Your task to perform on an android device: Go to CNN.com Image 0: 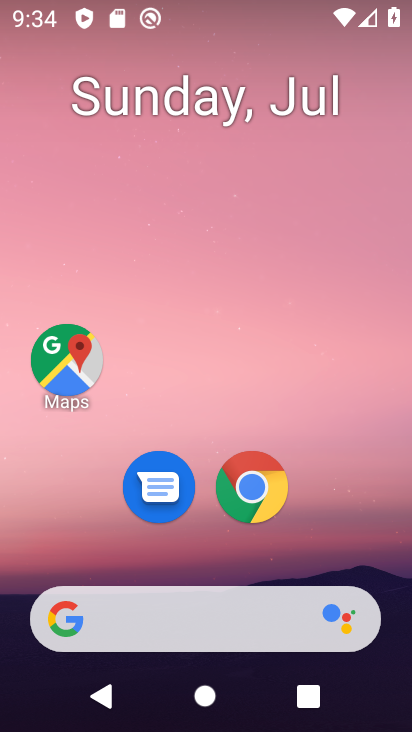
Step 0: click (256, 474)
Your task to perform on an android device: Go to CNN.com Image 1: 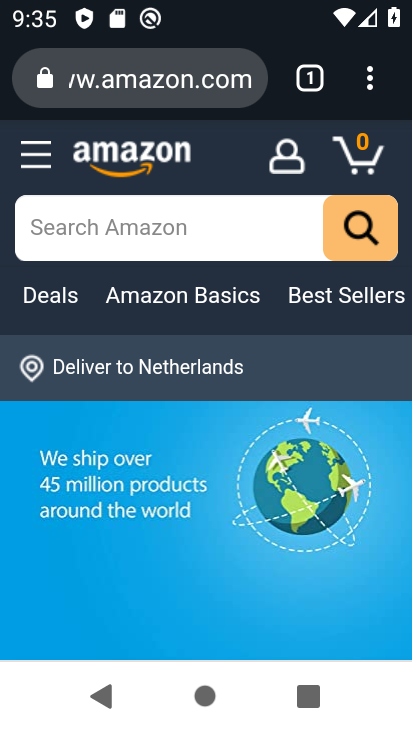
Step 1: click (306, 70)
Your task to perform on an android device: Go to CNN.com Image 2: 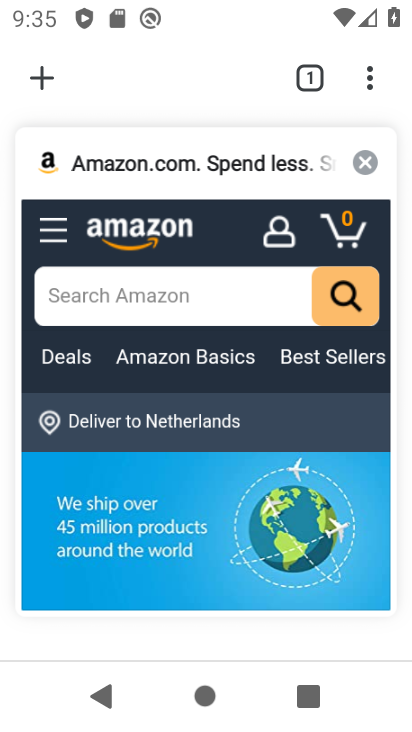
Step 2: click (32, 70)
Your task to perform on an android device: Go to CNN.com Image 3: 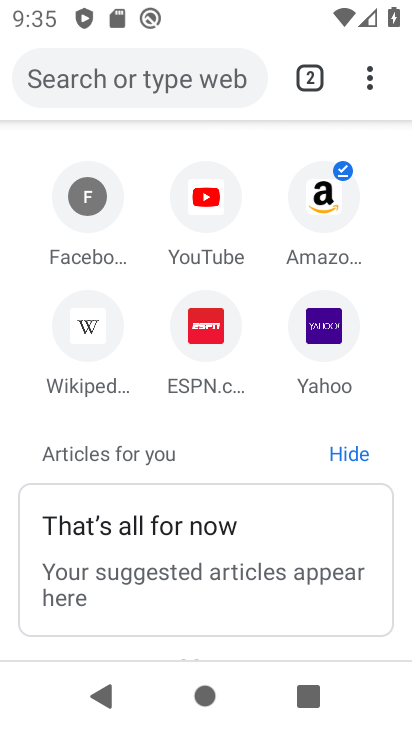
Step 3: click (102, 92)
Your task to perform on an android device: Go to CNN.com Image 4: 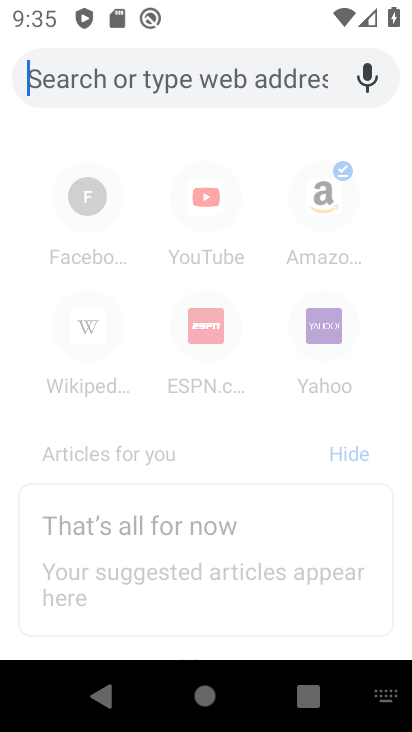
Step 4: type "cnn.com"
Your task to perform on an android device: Go to CNN.com Image 5: 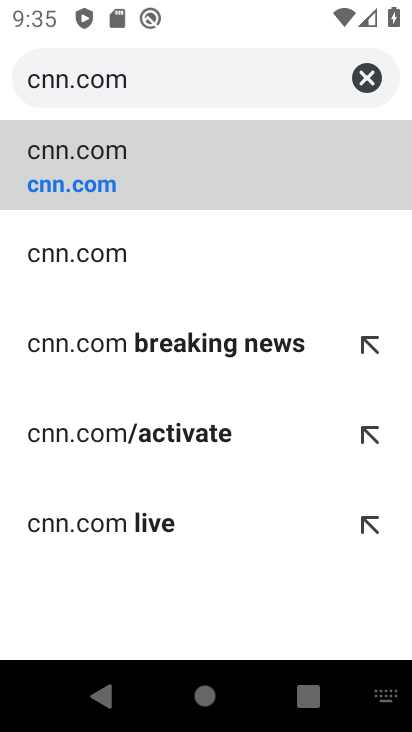
Step 5: click (215, 152)
Your task to perform on an android device: Go to CNN.com Image 6: 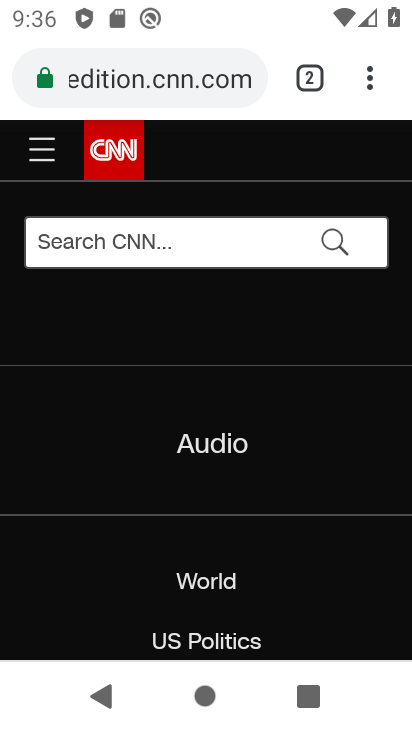
Step 6: task complete